Your task to perform on an android device: turn off translation in the chrome app Image 0: 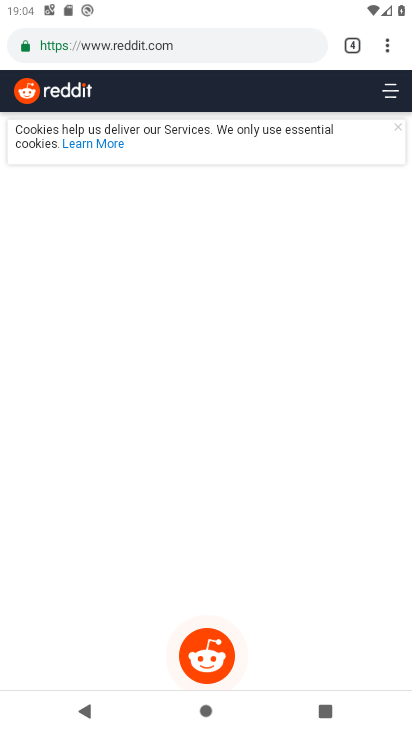
Step 0: click (393, 46)
Your task to perform on an android device: turn off translation in the chrome app Image 1: 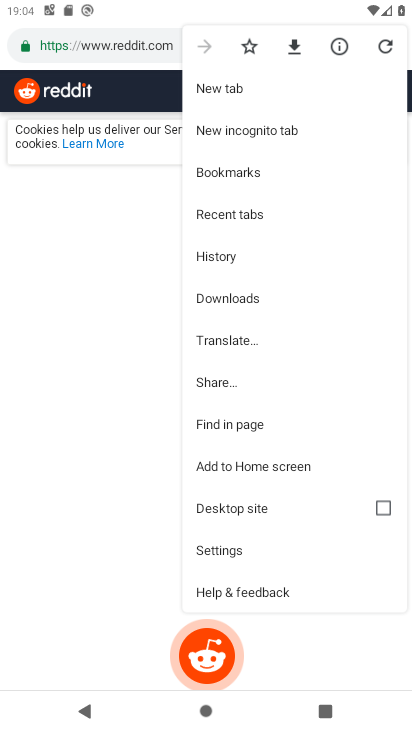
Step 1: click (224, 552)
Your task to perform on an android device: turn off translation in the chrome app Image 2: 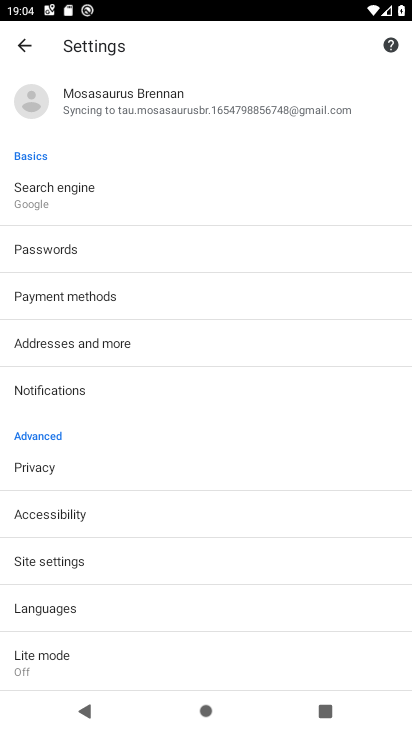
Step 2: click (52, 602)
Your task to perform on an android device: turn off translation in the chrome app Image 3: 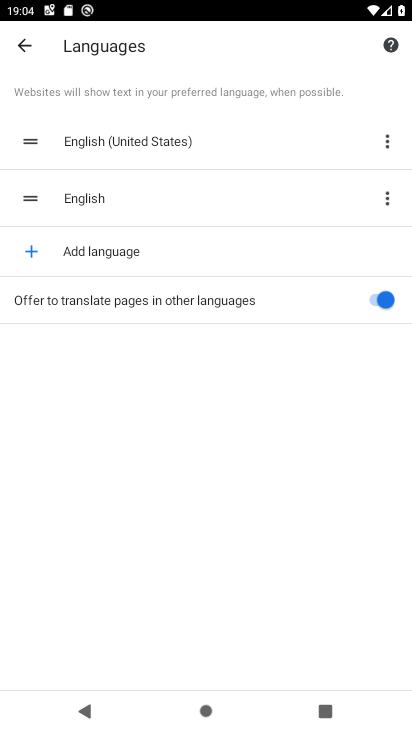
Step 3: click (374, 298)
Your task to perform on an android device: turn off translation in the chrome app Image 4: 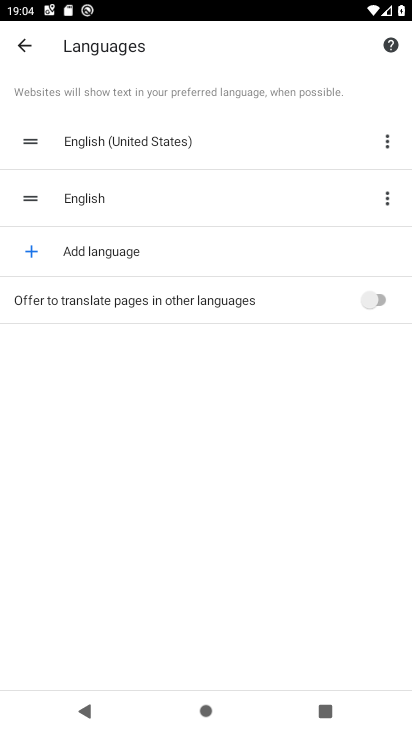
Step 4: task complete